Your task to perform on an android device: What's a good restaurant in Seattle? Image 0: 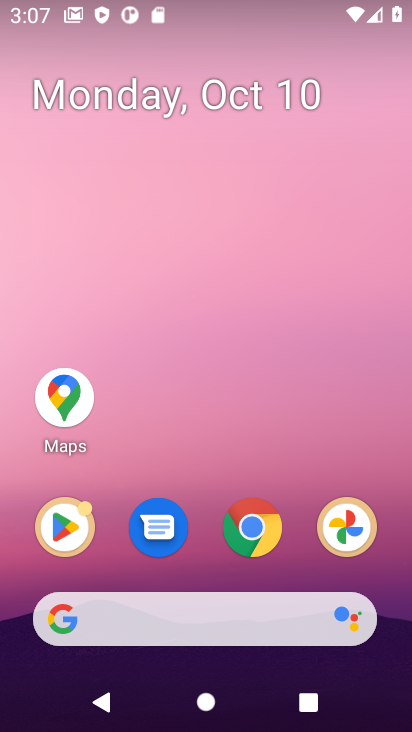
Step 0: press home button
Your task to perform on an android device: What's a good restaurant in Seattle? Image 1: 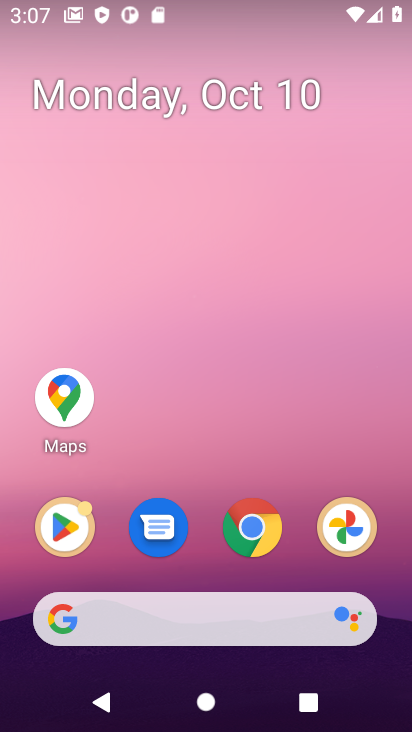
Step 1: click (235, 626)
Your task to perform on an android device: What's a good restaurant in Seattle? Image 2: 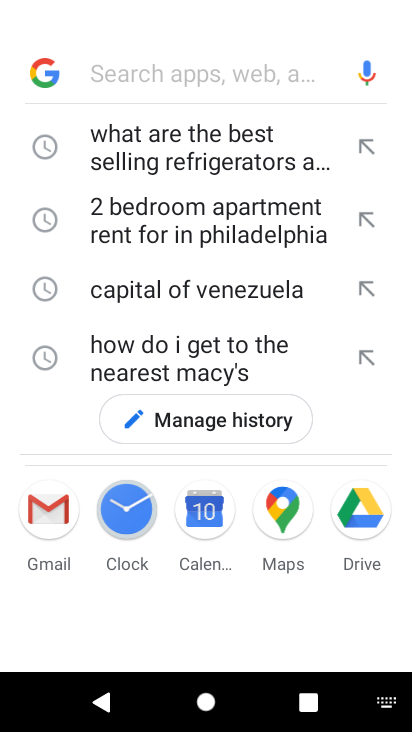
Step 2: type "What's a good restaurant in Seattle"
Your task to perform on an android device: What's a good restaurant in Seattle? Image 3: 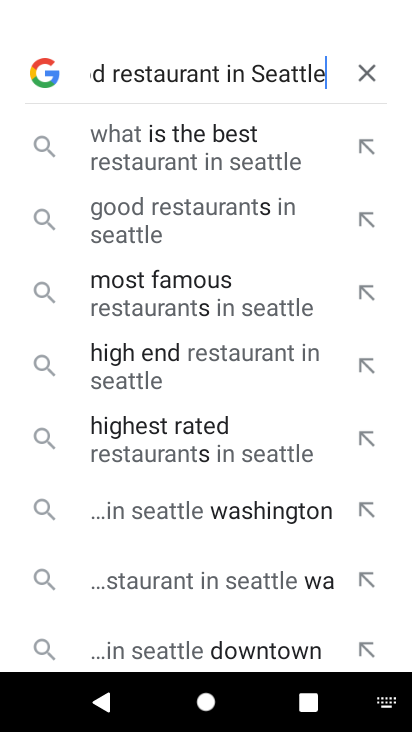
Step 3: press enter
Your task to perform on an android device: What's a good restaurant in Seattle? Image 4: 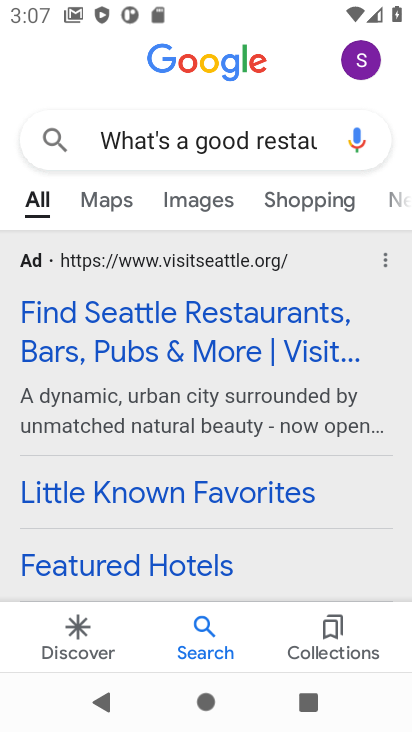
Step 4: click (259, 320)
Your task to perform on an android device: What's a good restaurant in Seattle? Image 5: 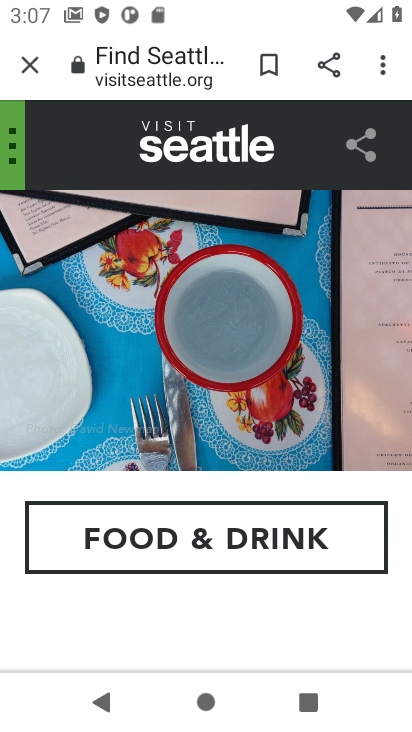
Step 5: drag from (265, 598) to (301, 361)
Your task to perform on an android device: What's a good restaurant in Seattle? Image 6: 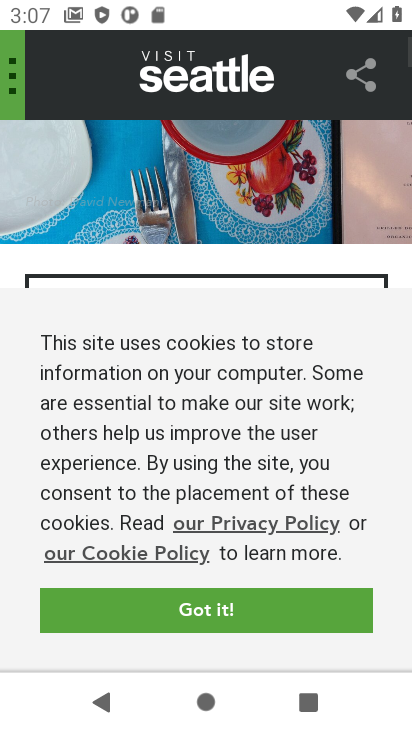
Step 6: click (265, 625)
Your task to perform on an android device: What's a good restaurant in Seattle? Image 7: 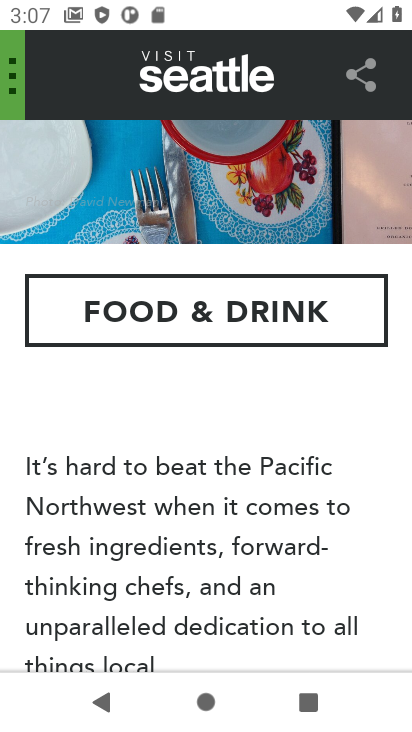
Step 7: task complete